Your task to perform on an android device: What's on my calendar today? Image 0: 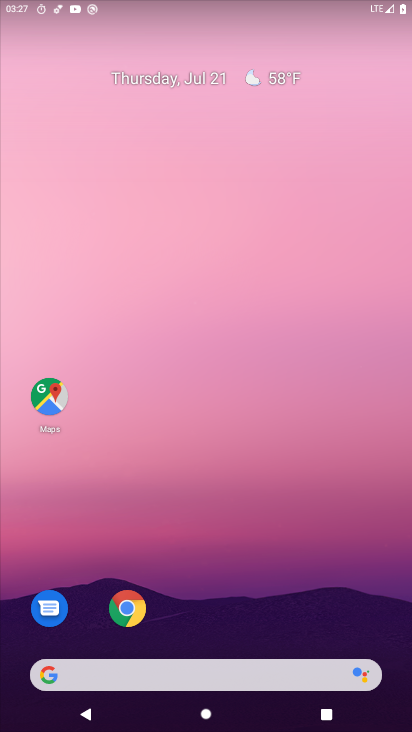
Step 0: press home button
Your task to perform on an android device: What's on my calendar today? Image 1: 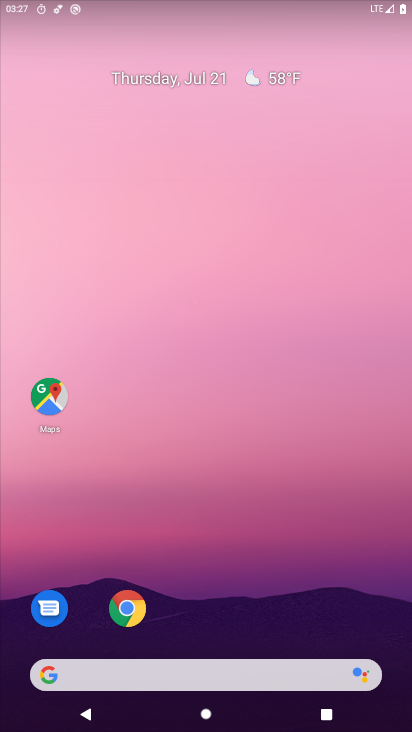
Step 1: drag from (201, 624) to (201, 236)
Your task to perform on an android device: What's on my calendar today? Image 2: 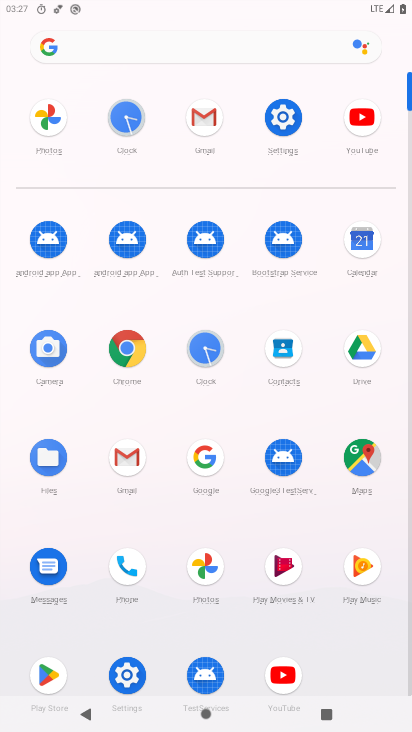
Step 2: click (360, 238)
Your task to perform on an android device: What's on my calendar today? Image 3: 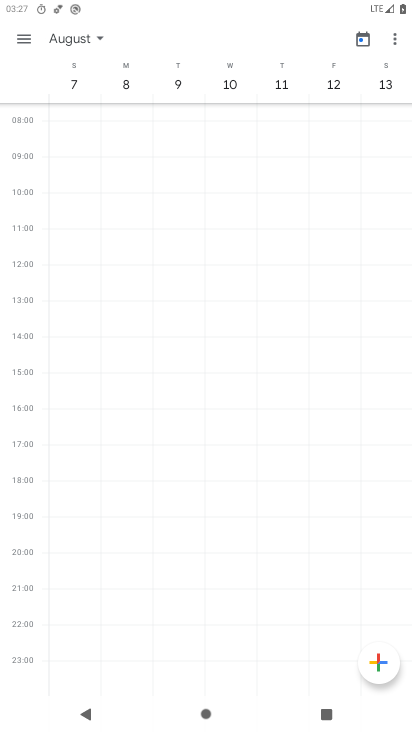
Step 3: click (99, 35)
Your task to perform on an android device: What's on my calendar today? Image 4: 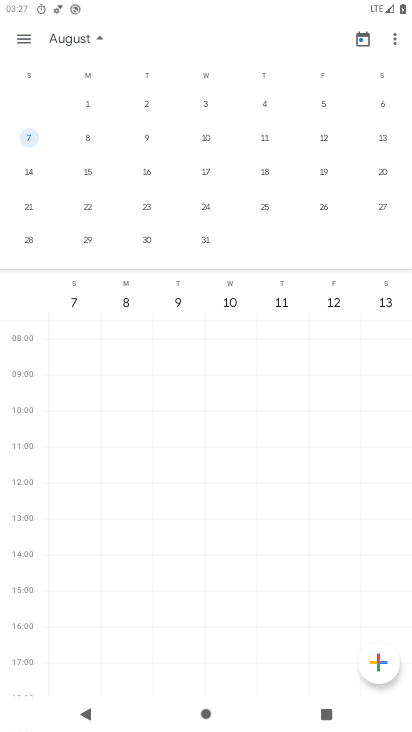
Step 4: drag from (46, 179) to (400, 203)
Your task to perform on an android device: What's on my calendar today? Image 5: 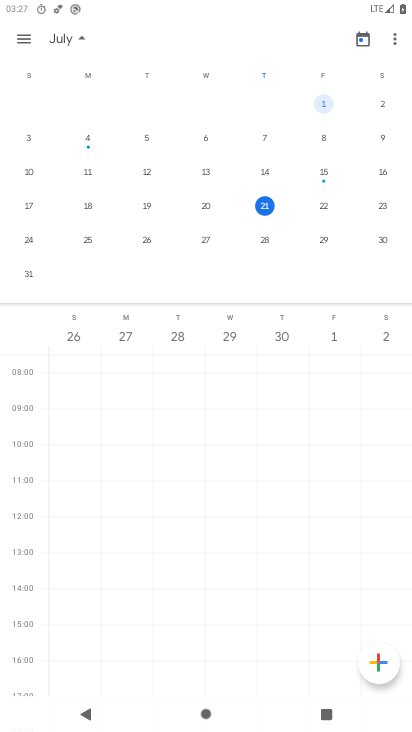
Step 5: click (266, 202)
Your task to perform on an android device: What's on my calendar today? Image 6: 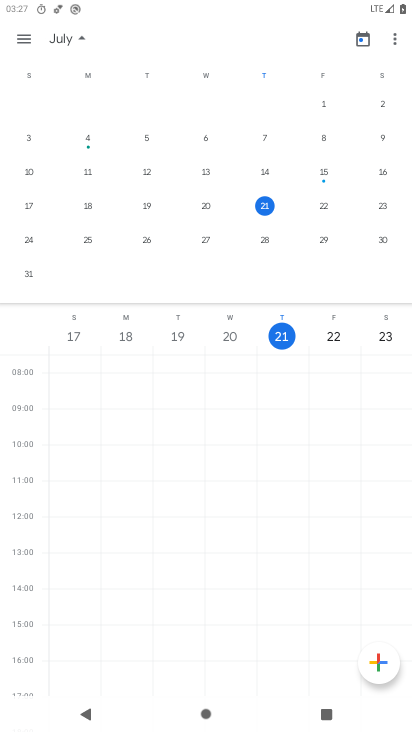
Step 6: click (280, 333)
Your task to perform on an android device: What's on my calendar today? Image 7: 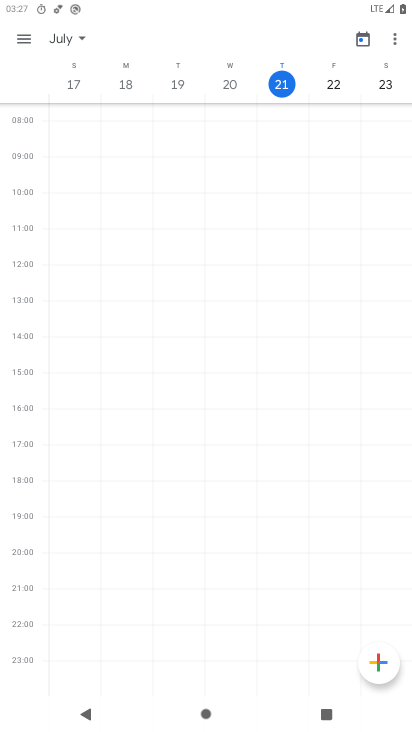
Step 7: click (286, 81)
Your task to perform on an android device: What's on my calendar today? Image 8: 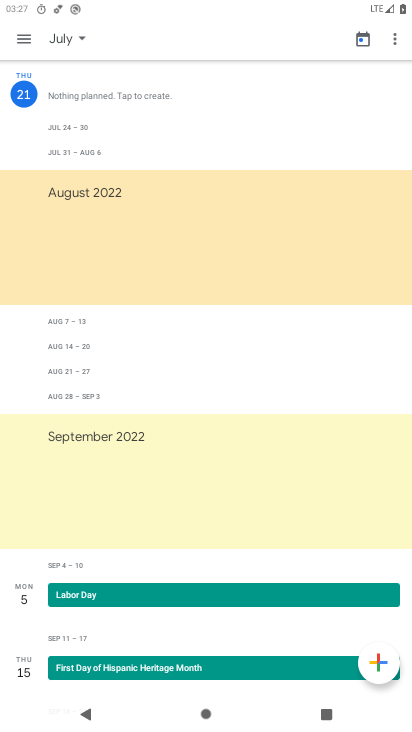
Step 8: click (27, 93)
Your task to perform on an android device: What's on my calendar today? Image 9: 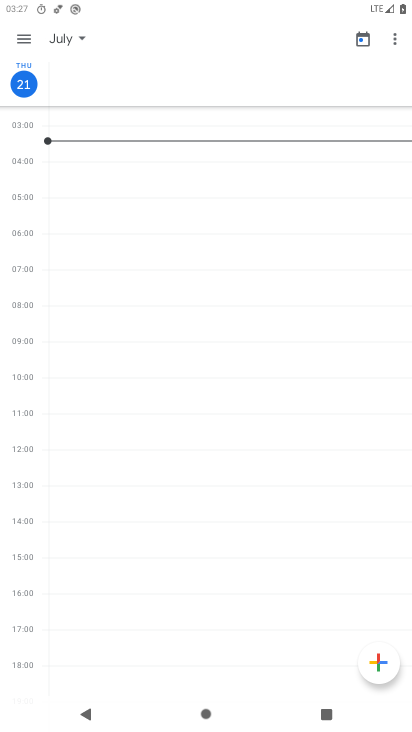
Step 9: task complete